Your task to perform on an android device: turn on javascript in the chrome app Image 0: 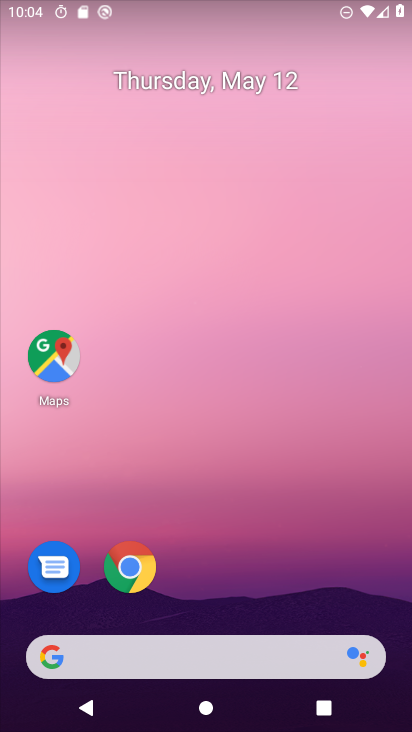
Step 0: drag from (197, 608) to (216, 223)
Your task to perform on an android device: turn on javascript in the chrome app Image 1: 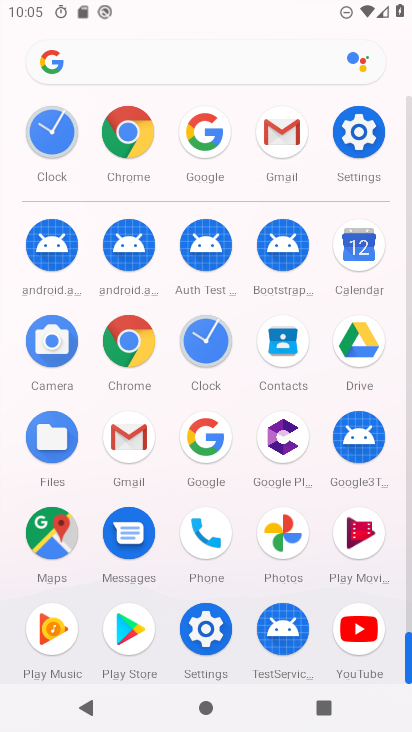
Step 1: click (149, 153)
Your task to perform on an android device: turn on javascript in the chrome app Image 2: 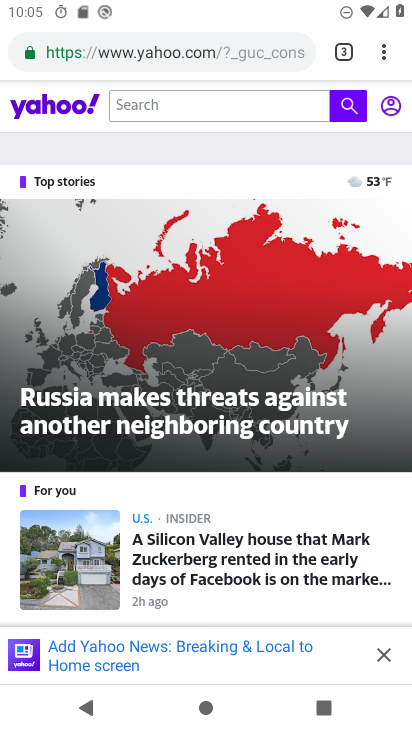
Step 2: click (390, 55)
Your task to perform on an android device: turn on javascript in the chrome app Image 3: 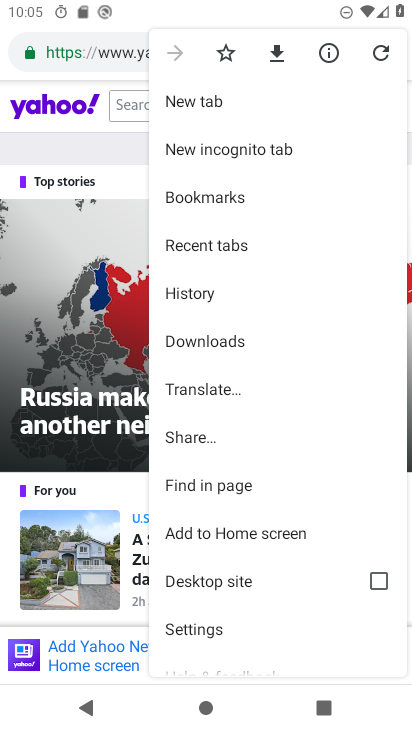
Step 3: click (223, 621)
Your task to perform on an android device: turn on javascript in the chrome app Image 4: 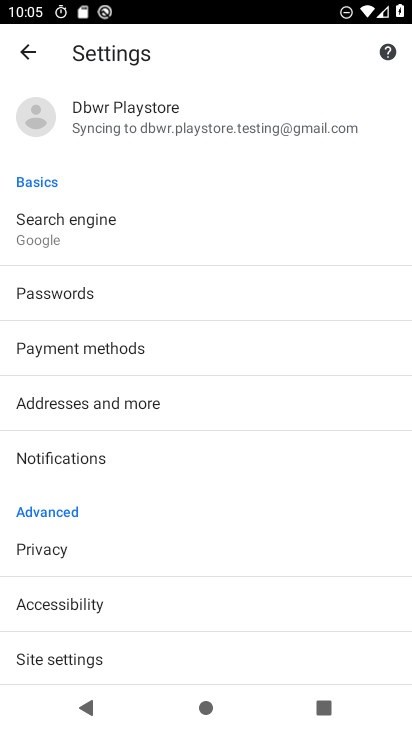
Step 4: click (219, 612)
Your task to perform on an android device: turn on javascript in the chrome app Image 5: 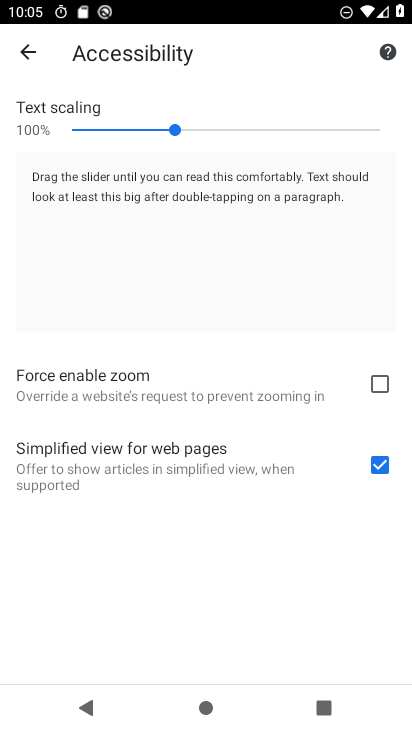
Step 5: click (41, 52)
Your task to perform on an android device: turn on javascript in the chrome app Image 6: 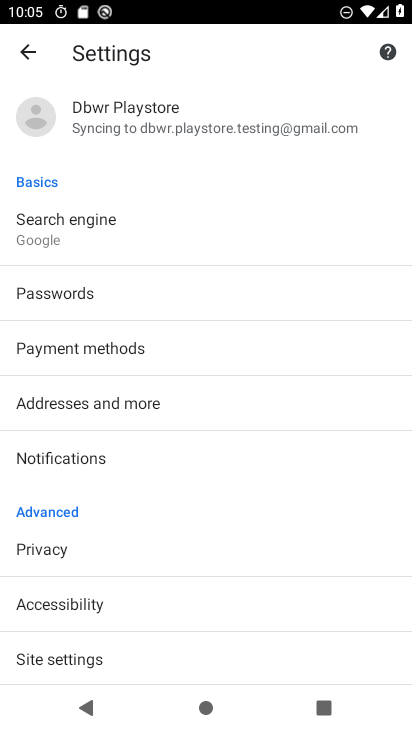
Step 6: drag from (167, 484) to (257, 184)
Your task to perform on an android device: turn on javascript in the chrome app Image 7: 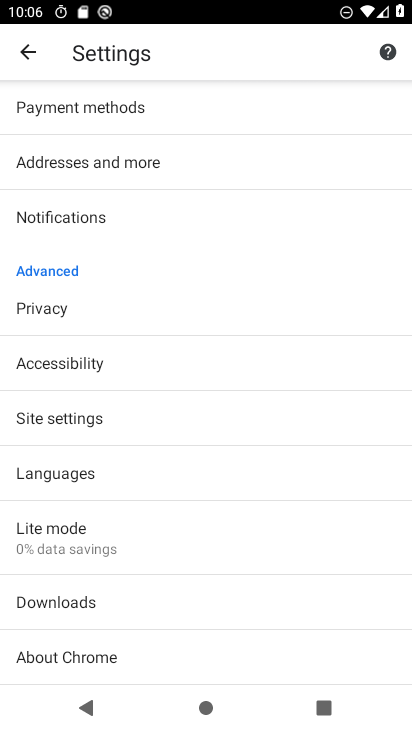
Step 7: click (135, 413)
Your task to perform on an android device: turn on javascript in the chrome app Image 8: 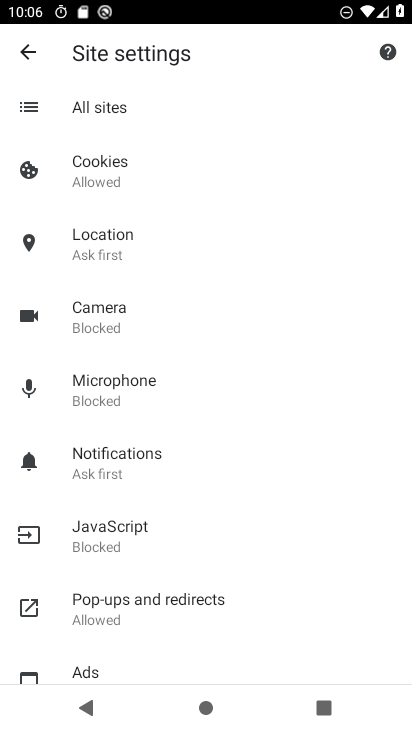
Step 8: click (141, 536)
Your task to perform on an android device: turn on javascript in the chrome app Image 9: 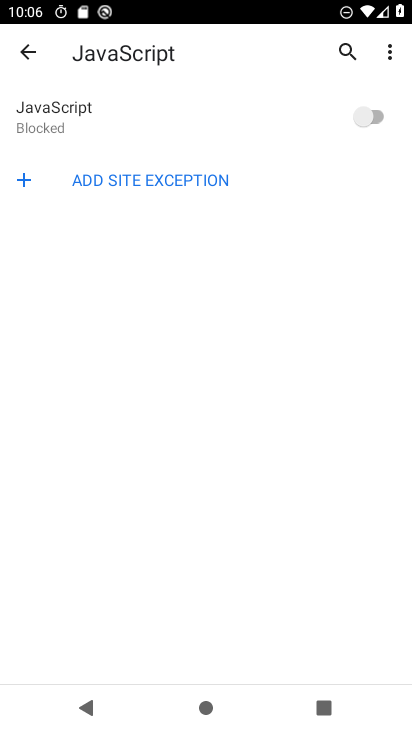
Step 9: click (307, 119)
Your task to perform on an android device: turn on javascript in the chrome app Image 10: 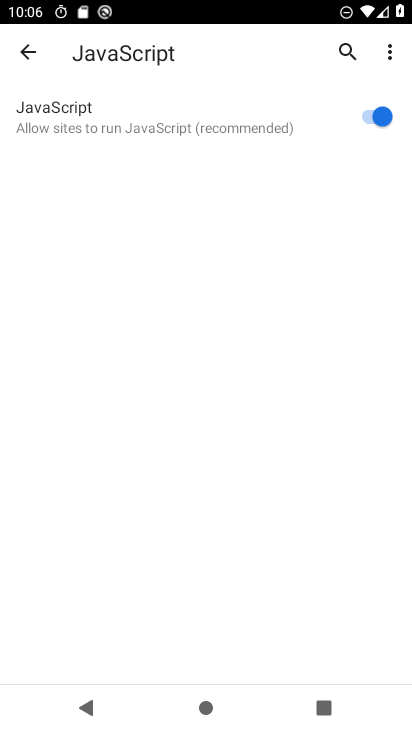
Step 10: task complete